Your task to perform on an android device: Go to notification settings Image 0: 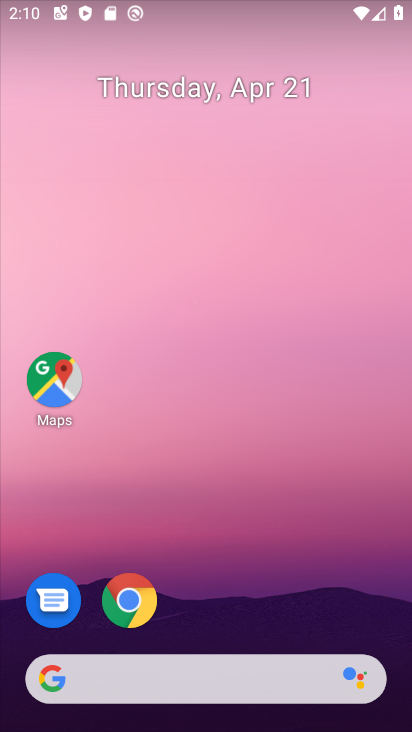
Step 0: drag from (242, 557) to (271, 9)
Your task to perform on an android device: Go to notification settings Image 1: 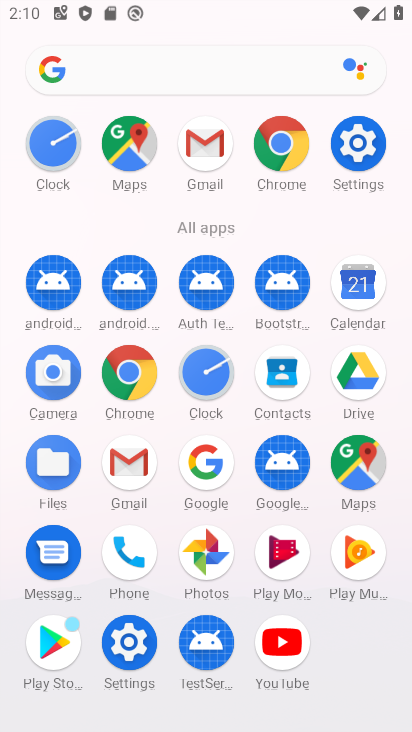
Step 1: click (358, 139)
Your task to perform on an android device: Go to notification settings Image 2: 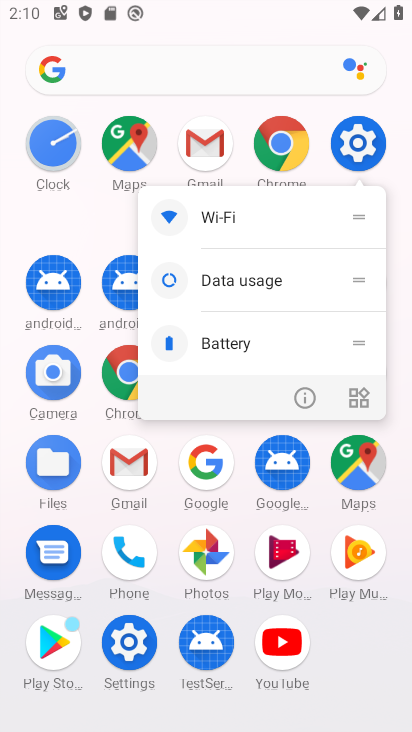
Step 2: click (374, 141)
Your task to perform on an android device: Go to notification settings Image 3: 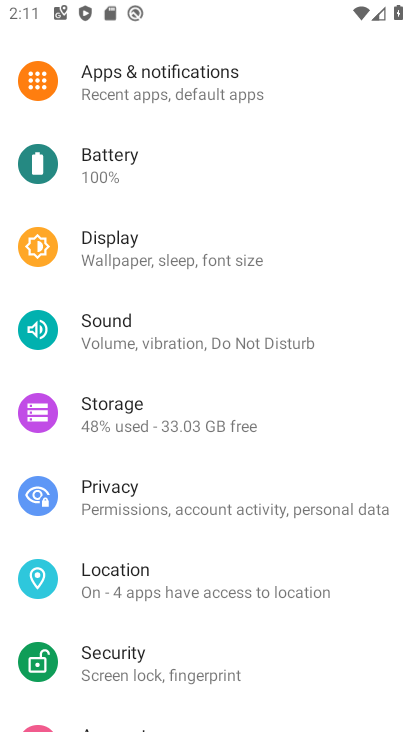
Step 3: click (196, 86)
Your task to perform on an android device: Go to notification settings Image 4: 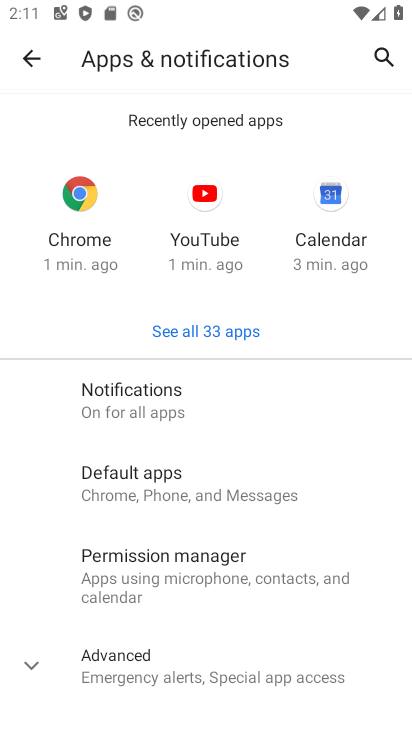
Step 4: click (176, 406)
Your task to perform on an android device: Go to notification settings Image 5: 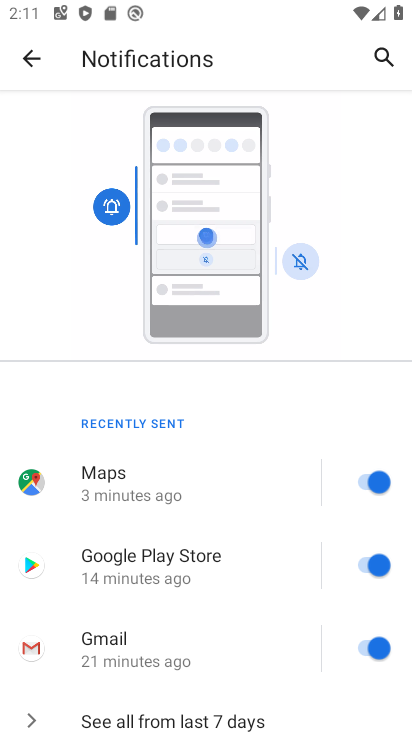
Step 5: task complete